Your task to perform on an android device: see tabs open on other devices in the chrome app Image 0: 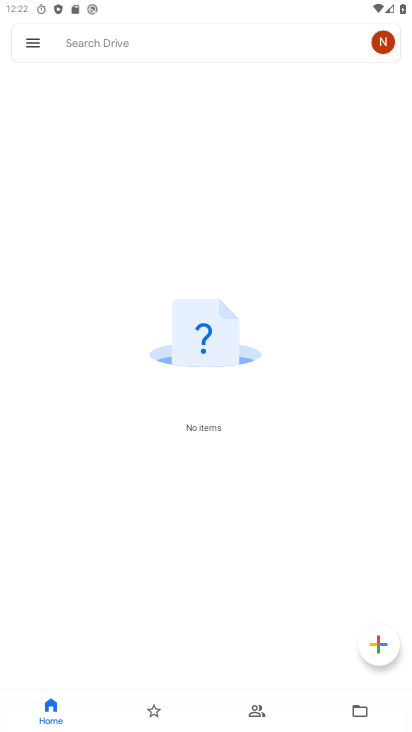
Step 0: press home button
Your task to perform on an android device: see tabs open on other devices in the chrome app Image 1: 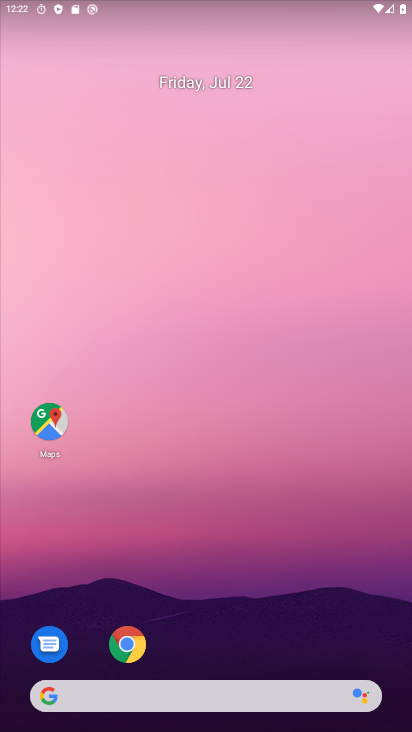
Step 1: drag from (340, 699) to (336, 66)
Your task to perform on an android device: see tabs open on other devices in the chrome app Image 2: 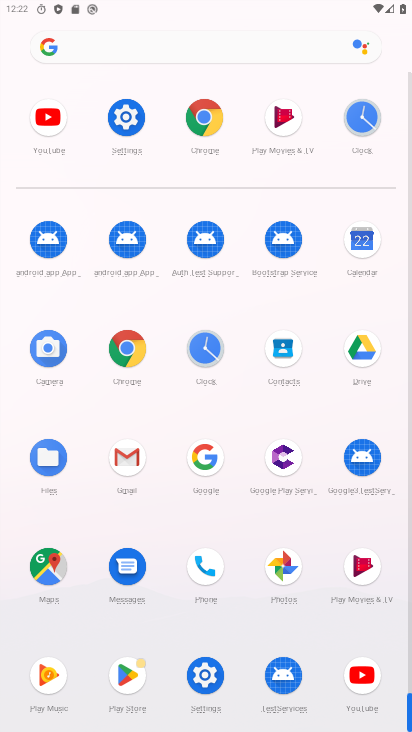
Step 2: click (336, 66)
Your task to perform on an android device: see tabs open on other devices in the chrome app Image 3: 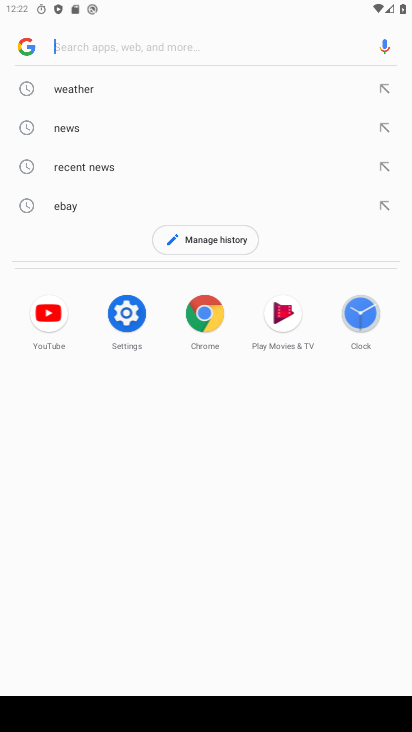
Step 3: press home button
Your task to perform on an android device: see tabs open on other devices in the chrome app Image 4: 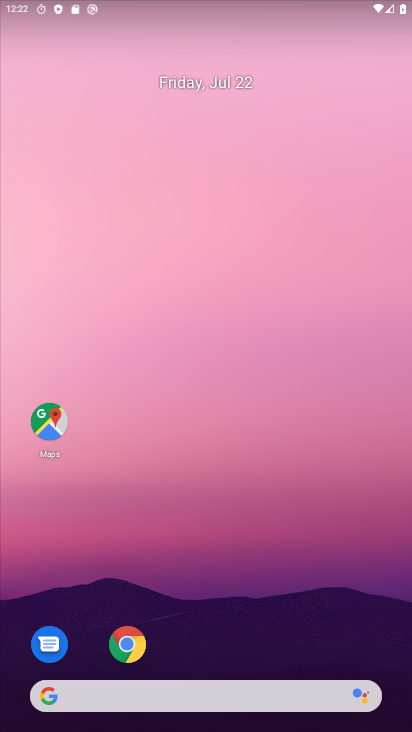
Step 4: click (142, 644)
Your task to perform on an android device: see tabs open on other devices in the chrome app Image 5: 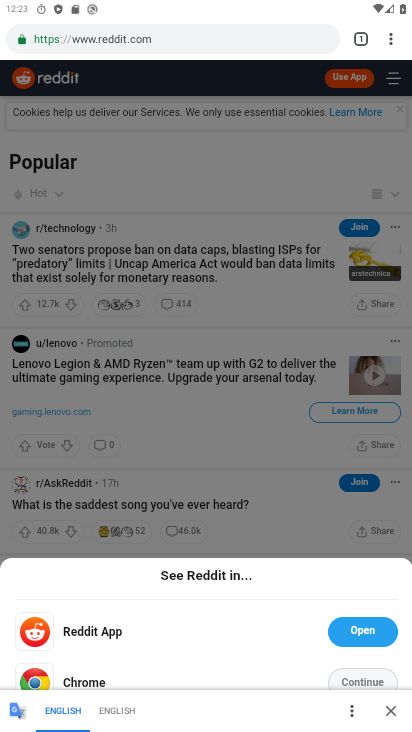
Step 5: task complete